Your task to perform on an android device: install app "DuckDuckGo Privacy Browser" Image 0: 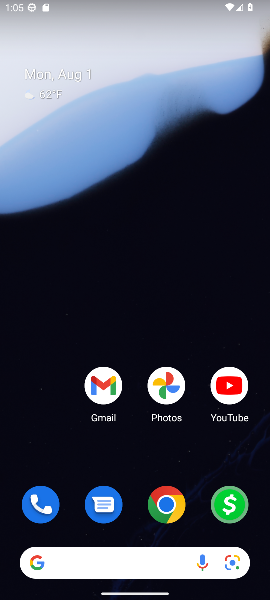
Step 0: drag from (145, 559) to (179, 135)
Your task to perform on an android device: install app "DuckDuckGo Privacy Browser" Image 1: 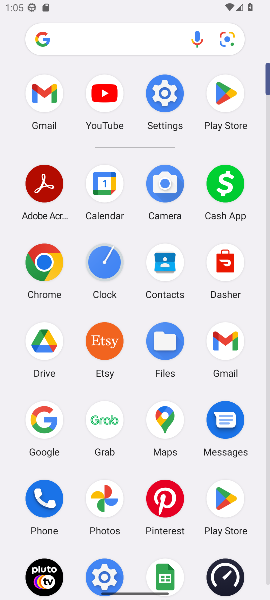
Step 1: click (220, 96)
Your task to perform on an android device: install app "DuckDuckGo Privacy Browser" Image 2: 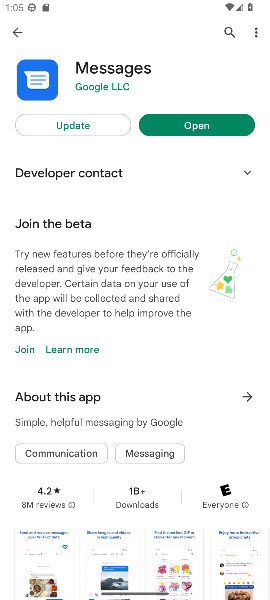
Step 2: click (230, 37)
Your task to perform on an android device: install app "DuckDuckGo Privacy Browser" Image 3: 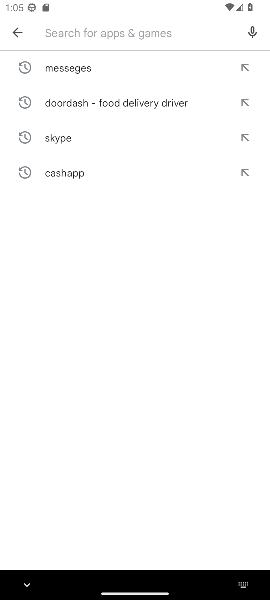
Step 3: type "duckduckgo"
Your task to perform on an android device: install app "DuckDuckGo Privacy Browser" Image 4: 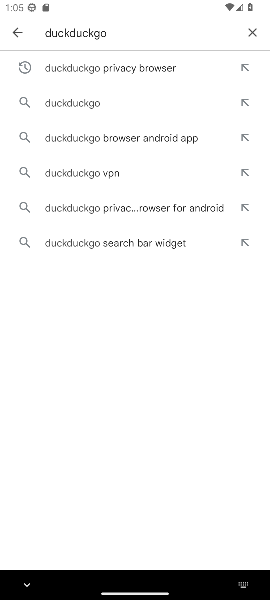
Step 4: click (157, 63)
Your task to perform on an android device: install app "DuckDuckGo Privacy Browser" Image 5: 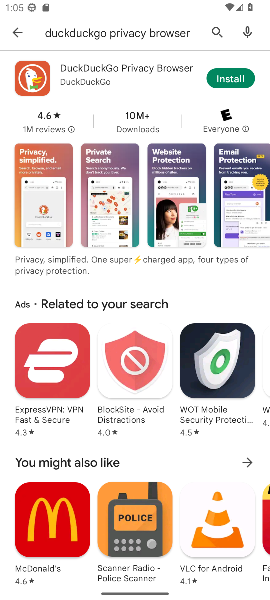
Step 5: click (221, 71)
Your task to perform on an android device: install app "DuckDuckGo Privacy Browser" Image 6: 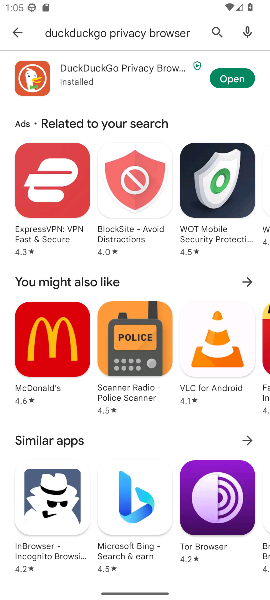
Step 6: task complete